Your task to perform on an android device: Turn on the flashlight Image 0: 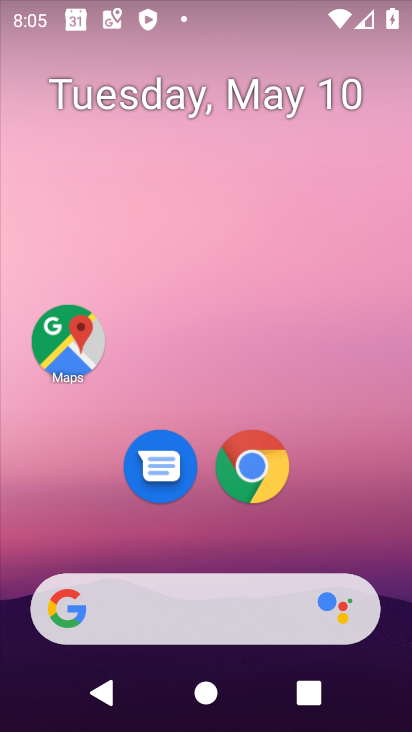
Step 0: drag from (289, 546) to (335, 46)
Your task to perform on an android device: Turn on the flashlight Image 1: 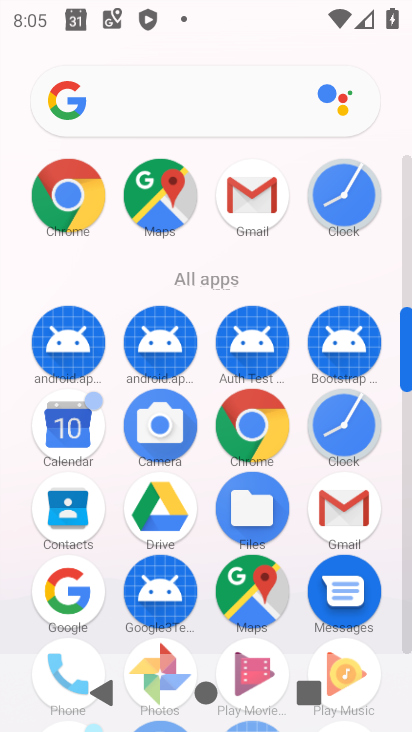
Step 1: drag from (293, 634) to (306, 457)
Your task to perform on an android device: Turn on the flashlight Image 2: 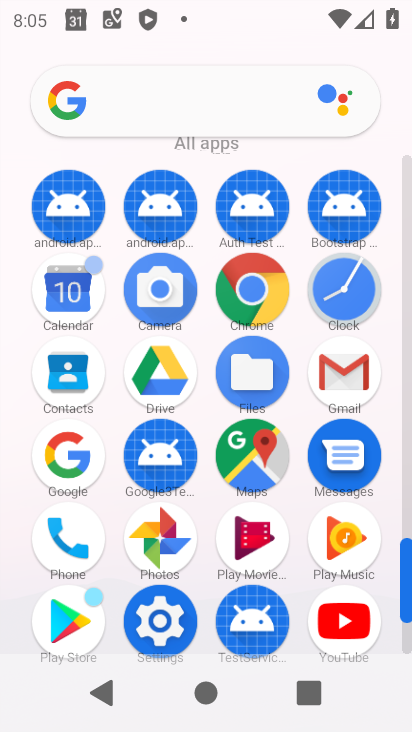
Step 2: click (144, 615)
Your task to perform on an android device: Turn on the flashlight Image 3: 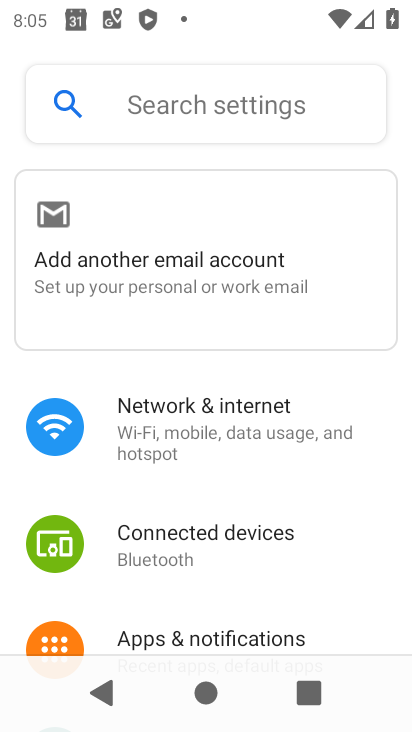
Step 3: task complete